Your task to perform on an android device: all mails in gmail Image 0: 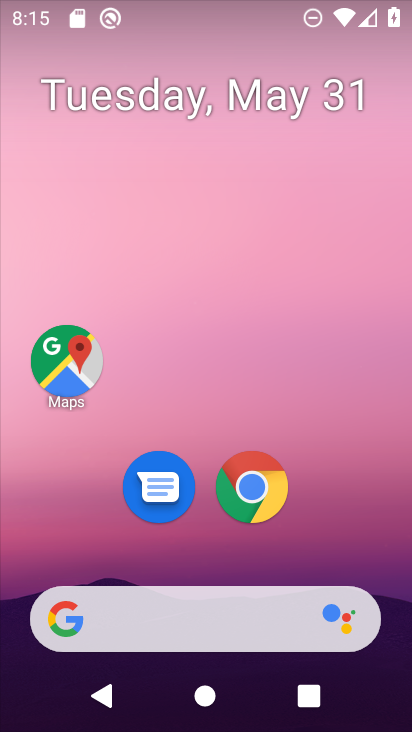
Step 0: drag from (126, 674) to (118, 48)
Your task to perform on an android device: all mails in gmail Image 1: 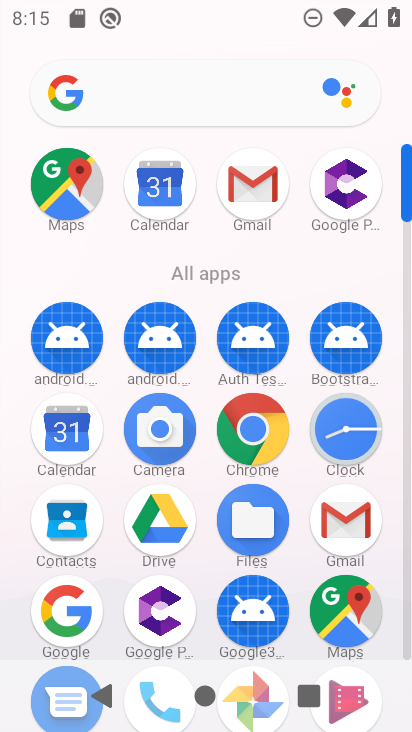
Step 1: click (248, 187)
Your task to perform on an android device: all mails in gmail Image 2: 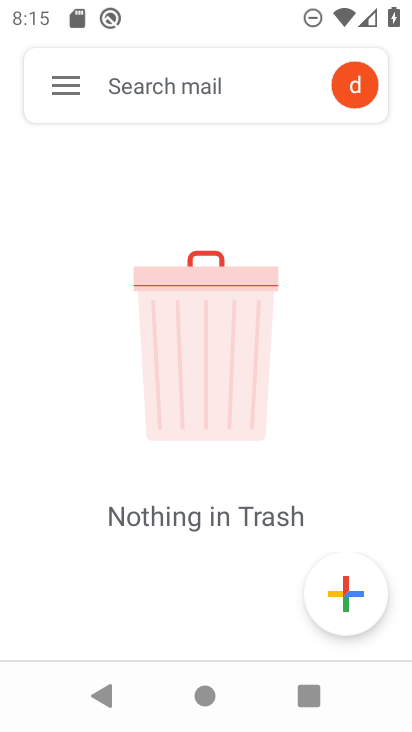
Step 2: click (54, 78)
Your task to perform on an android device: all mails in gmail Image 3: 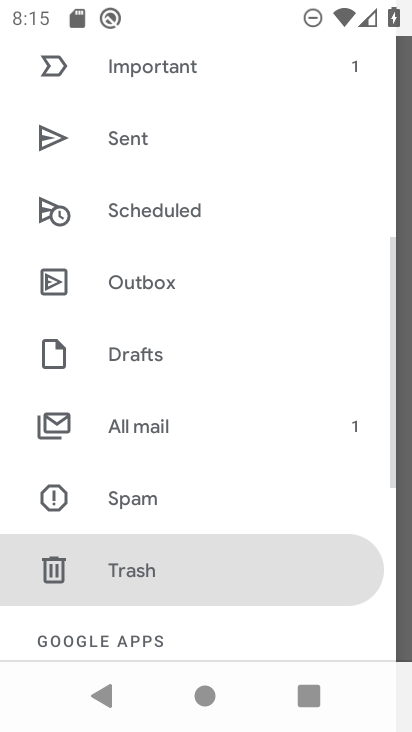
Step 3: drag from (182, 118) to (206, 529)
Your task to perform on an android device: all mails in gmail Image 4: 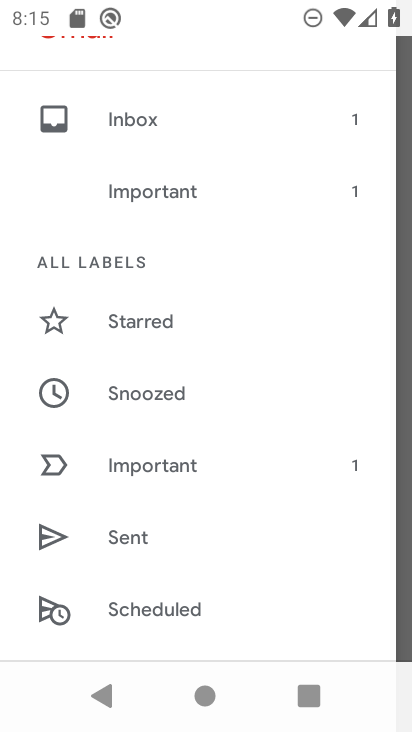
Step 4: drag from (280, 376) to (267, 76)
Your task to perform on an android device: all mails in gmail Image 5: 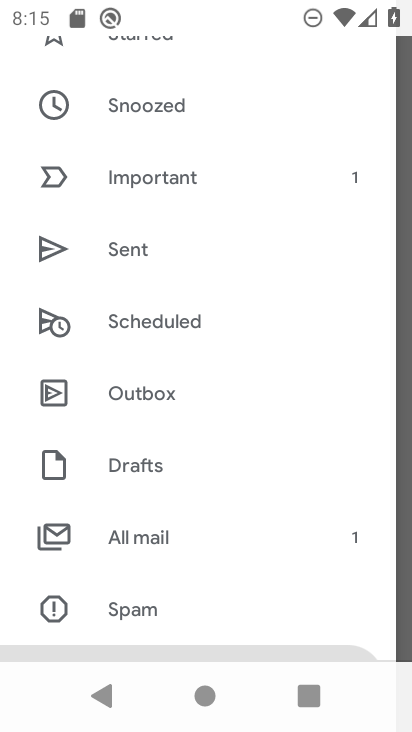
Step 5: click (169, 530)
Your task to perform on an android device: all mails in gmail Image 6: 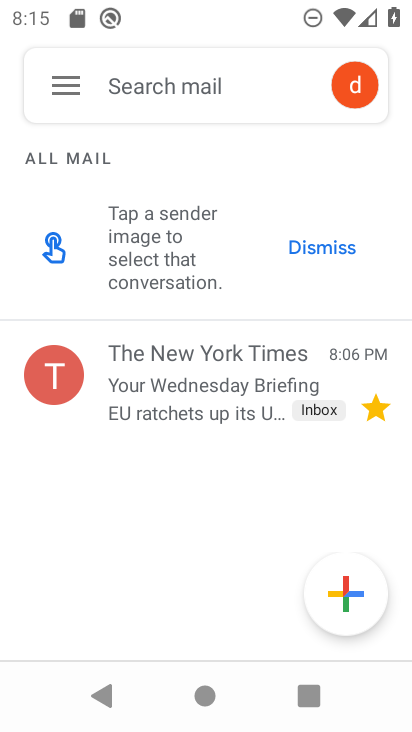
Step 6: task complete